Your task to perform on an android device: uninstall "Booking.com: Hotels and more" Image 0: 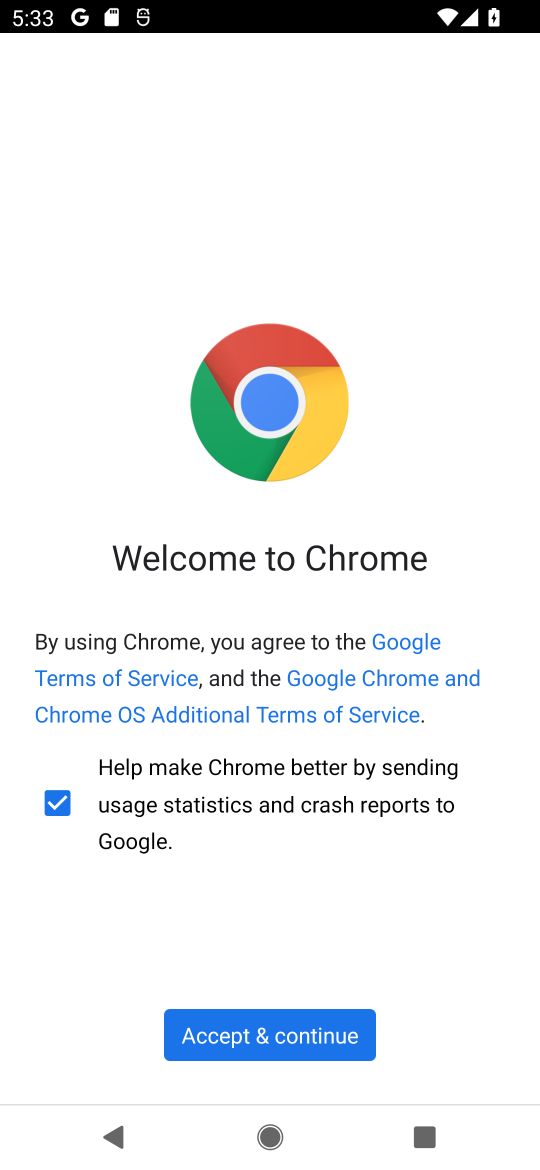
Step 0: press home button
Your task to perform on an android device: uninstall "Booking.com: Hotels and more" Image 1: 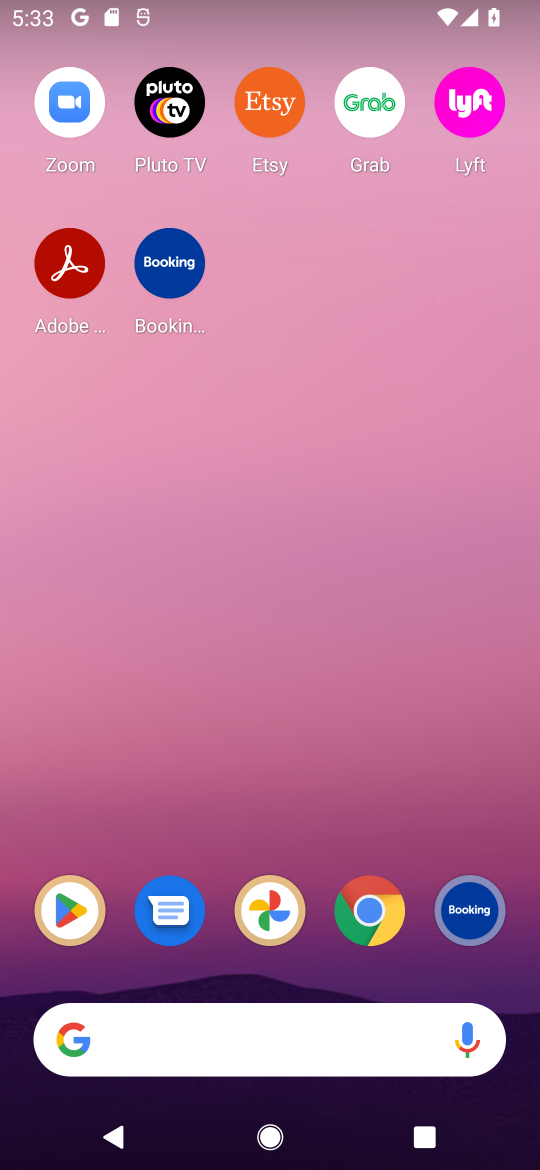
Step 1: click (70, 927)
Your task to perform on an android device: uninstall "Booking.com: Hotels and more" Image 2: 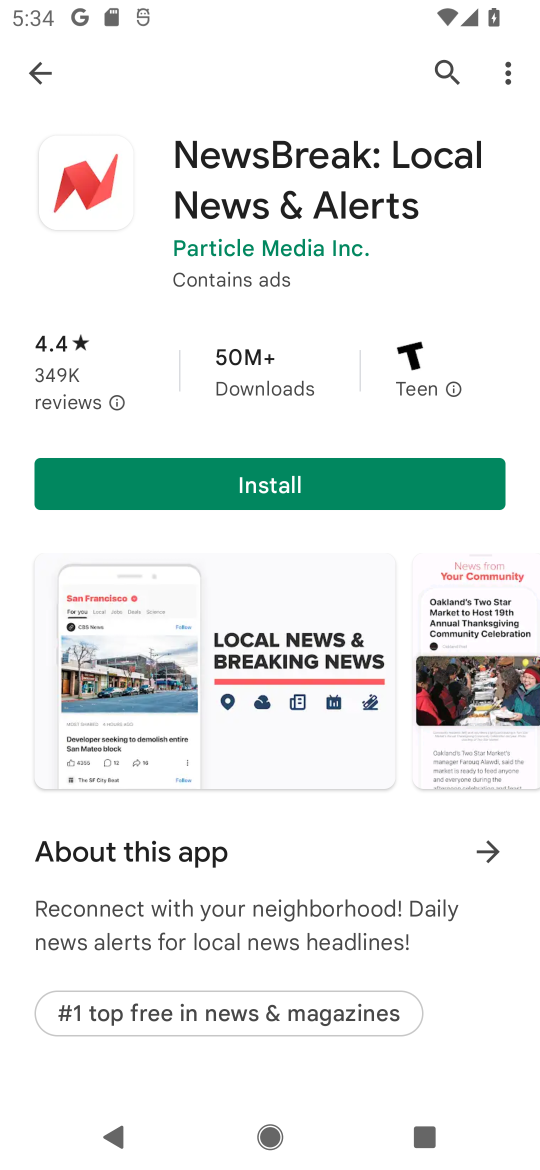
Step 2: click (438, 67)
Your task to perform on an android device: uninstall "Booking.com: Hotels and more" Image 3: 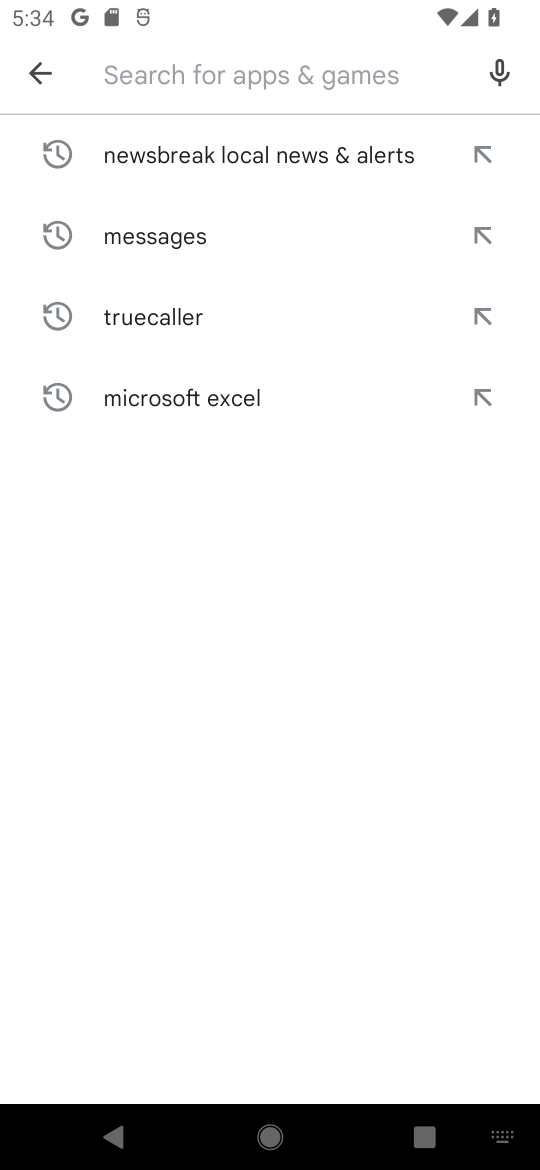
Step 3: type "booking.com: hotels and more"
Your task to perform on an android device: uninstall "Booking.com: Hotels and more" Image 4: 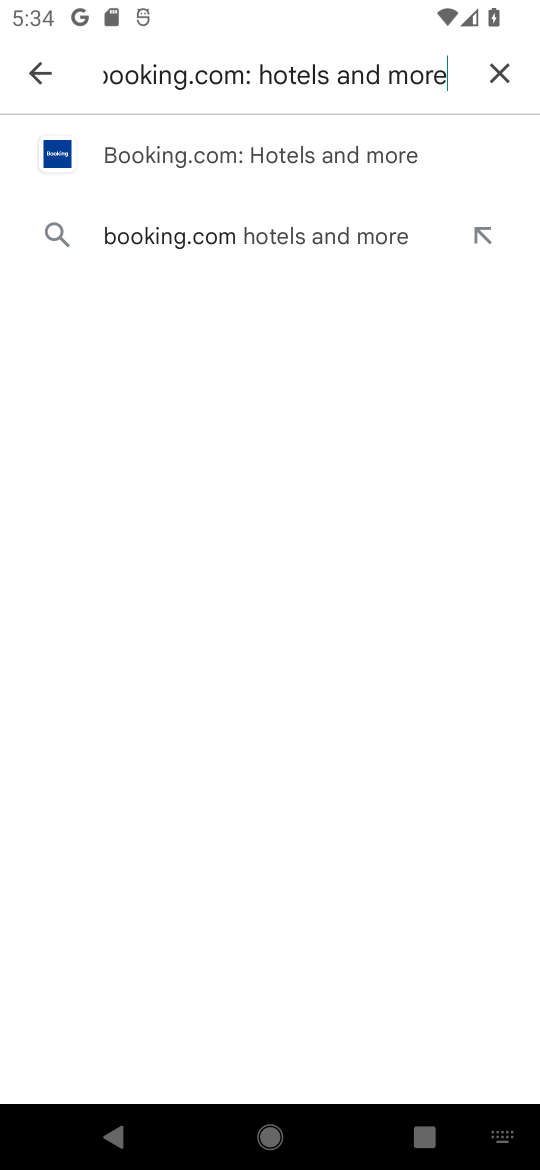
Step 4: click (415, 145)
Your task to perform on an android device: uninstall "Booking.com: Hotels and more" Image 5: 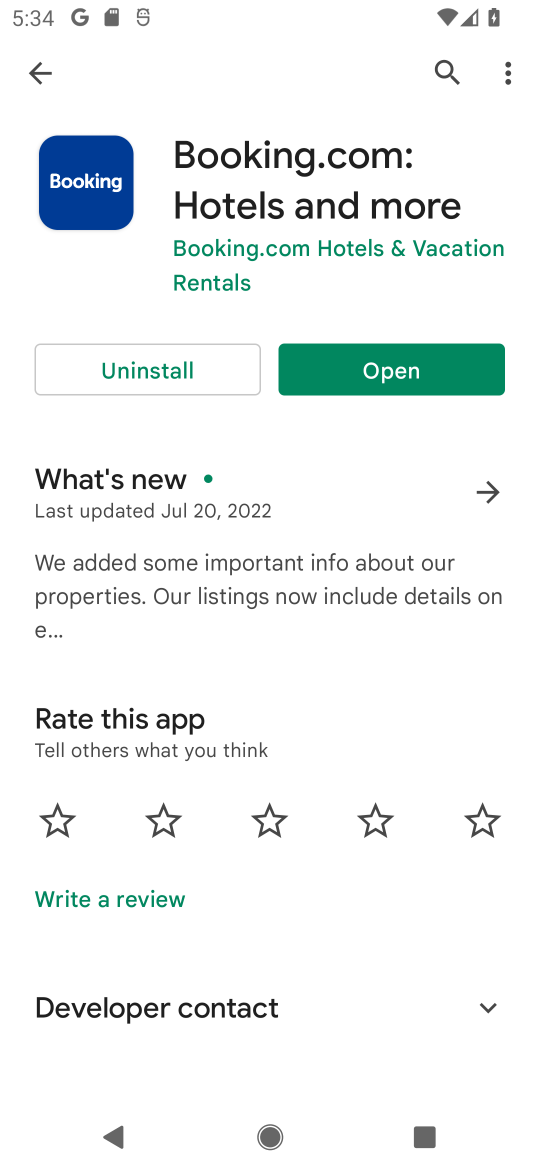
Step 5: click (169, 382)
Your task to perform on an android device: uninstall "Booking.com: Hotels and more" Image 6: 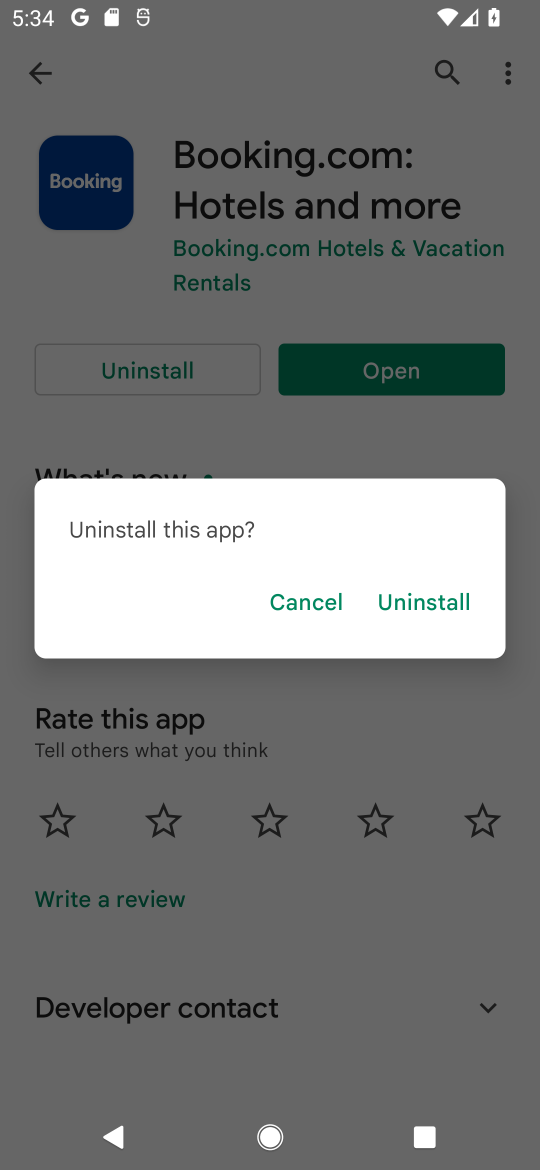
Step 6: click (435, 603)
Your task to perform on an android device: uninstall "Booking.com: Hotels and more" Image 7: 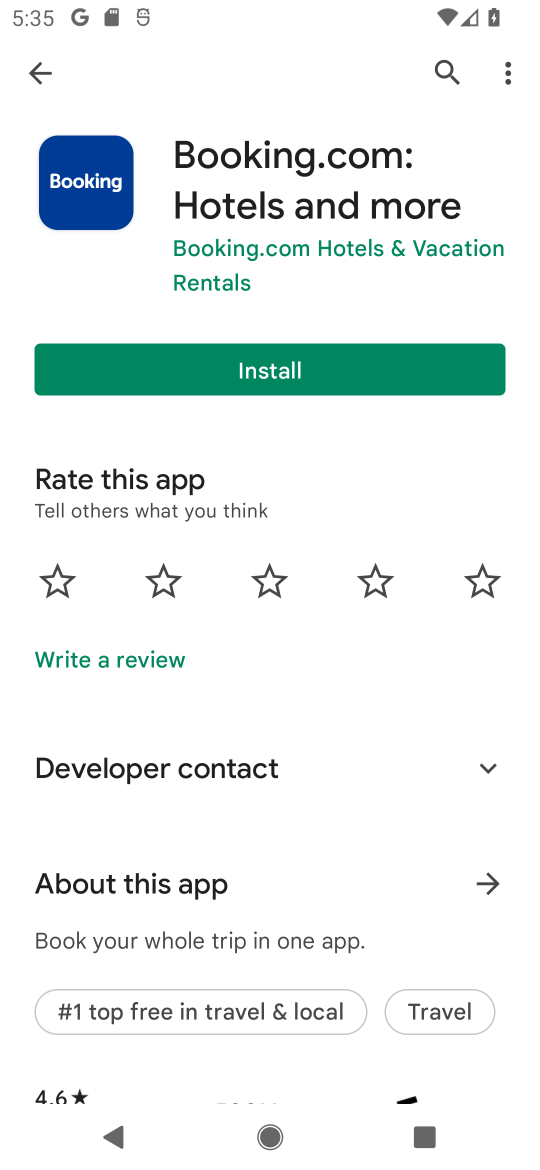
Step 7: task complete